Your task to perform on an android device: Go to Maps Image 0: 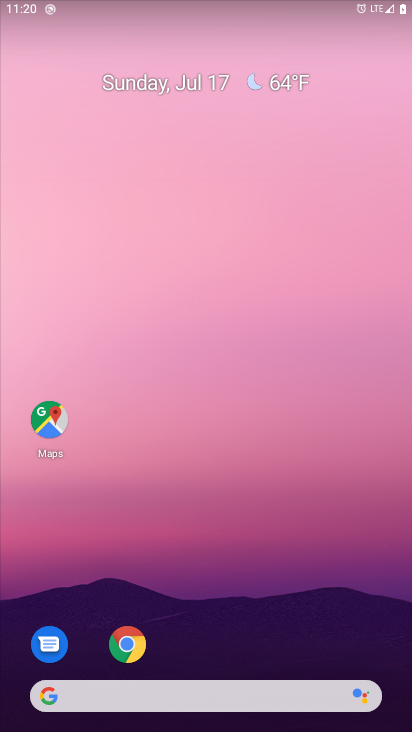
Step 0: click (45, 414)
Your task to perform on an android device: Go to Maps Image 1: 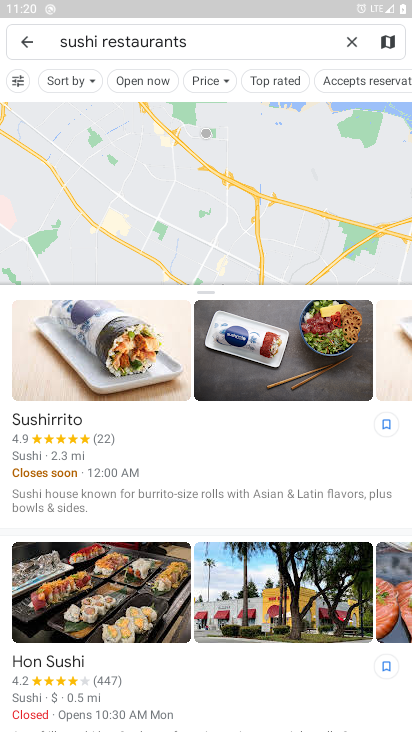
Step 1: click (22, 44)
Your task to perform on an android device: Go to Maps Image 2: 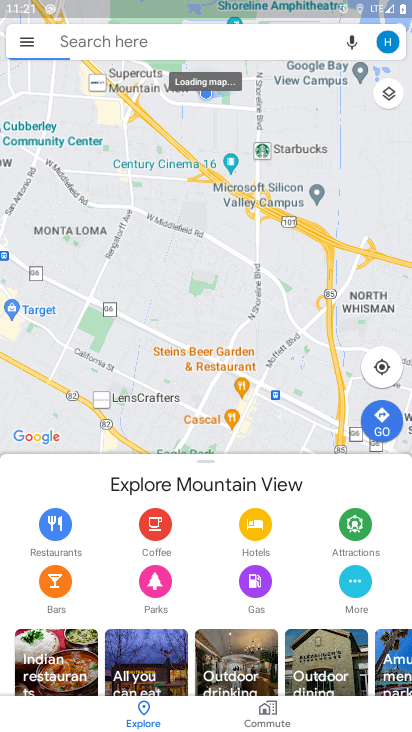
Step 2: task complete